Your task to perform on an android device: Is it going to rain tomorrow? Image 0: 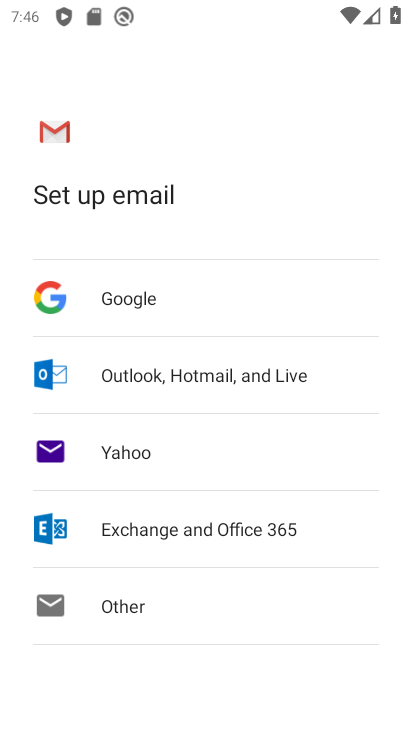
Step 0: press home button
Your task to perform on an android device: Is it going to rain tomorrow? Image 1: 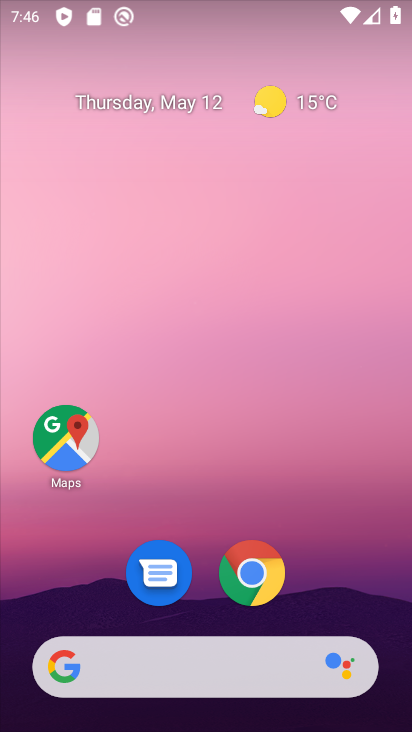
Step 1: click (228, 656)
Your task to perform on an android device: Is it going to rain tomorrow? Image 2: 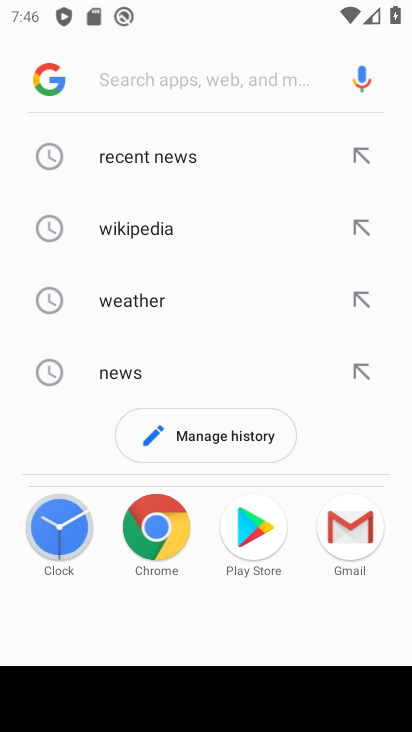
Step 2: click (143, 297)
Your task to perform on an android device: Is it going to rain tomorrow? Image 3: 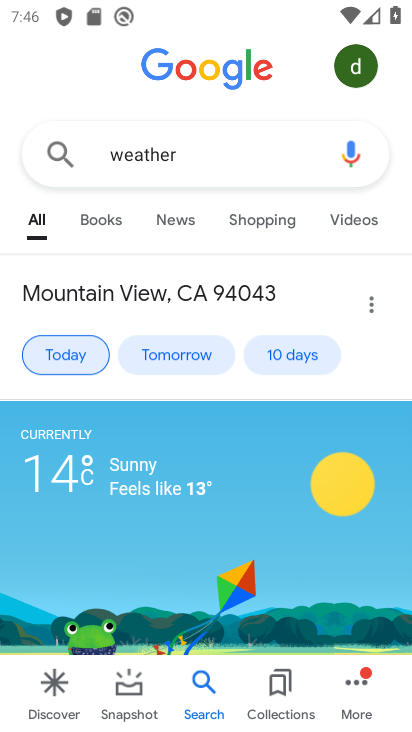
Step 3: click (168, 357)
Your task to perform on an android device: Is it going to rain tomorrow? Image 4: 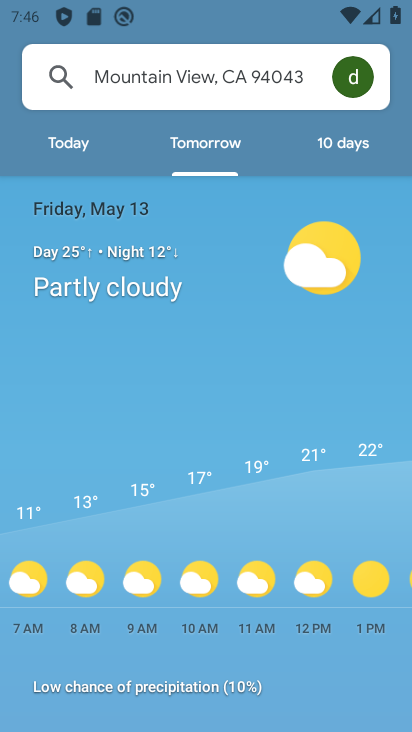
Step 4: task complete